Your task to perform on an android device: Go to internet settings Image 0: 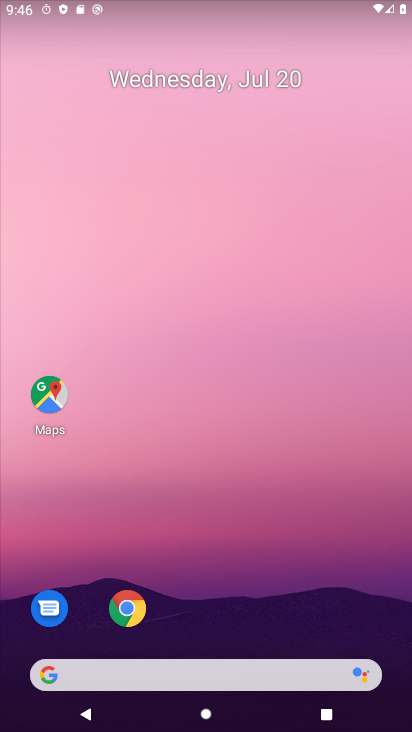
Step 0: drag from (303, 654) to (270, 260)
Your task to perform on an android device: Go to internet settings Image 1: 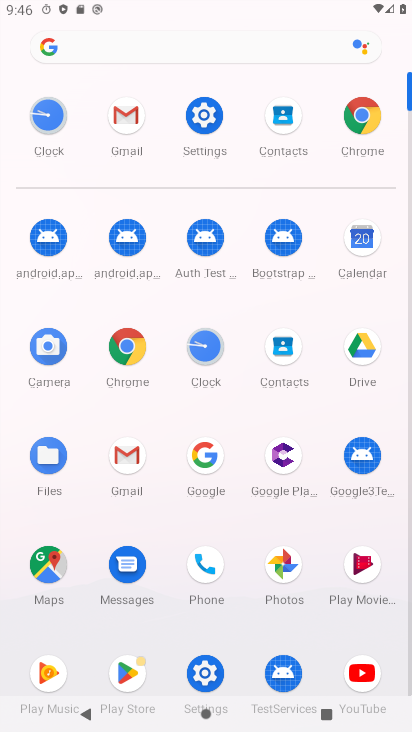
Step 1: click (198, 121)
Your task to perform on an android device: Go to internet settings Image 2: 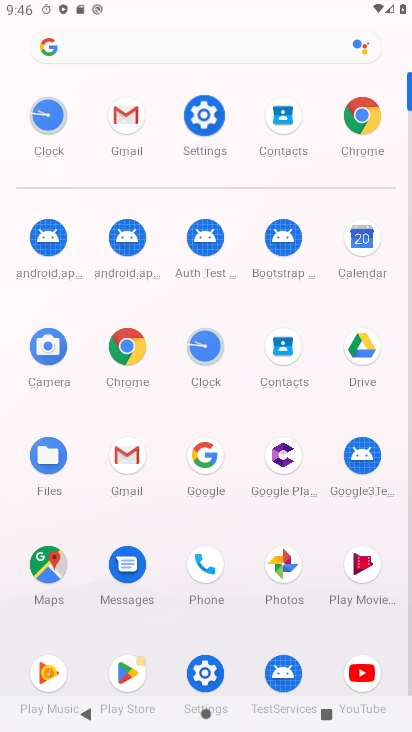
Step 2: click (206, 124)
Your task to perform on an android device: Go to internet settings Image 3: 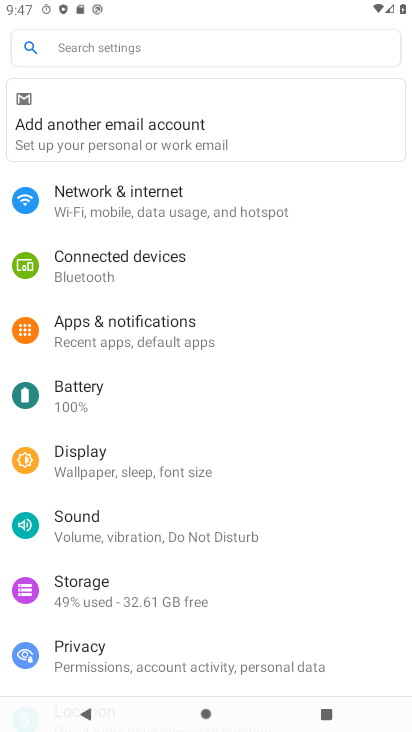
Step 3: click (117, 202)
Your task to perform on an android device: Go to internet settings Image 4: 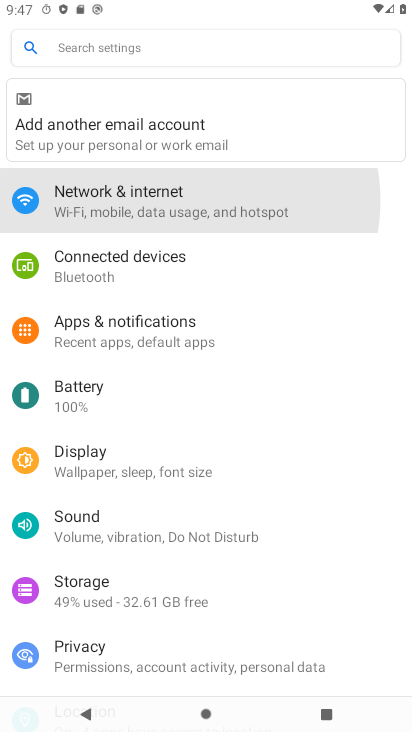
Step 4: click (119, 203)
Your task to perform on an android device: Go to internet settings Image 5: 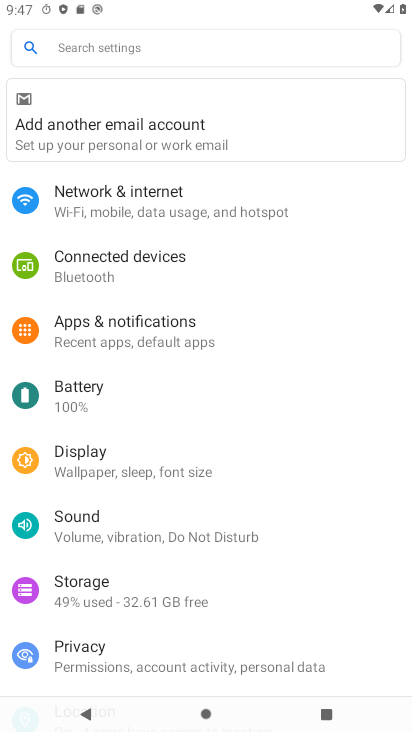
Step 5: click (120, 202)
Your task to perform on an android device: Go to internet settings Image 6: 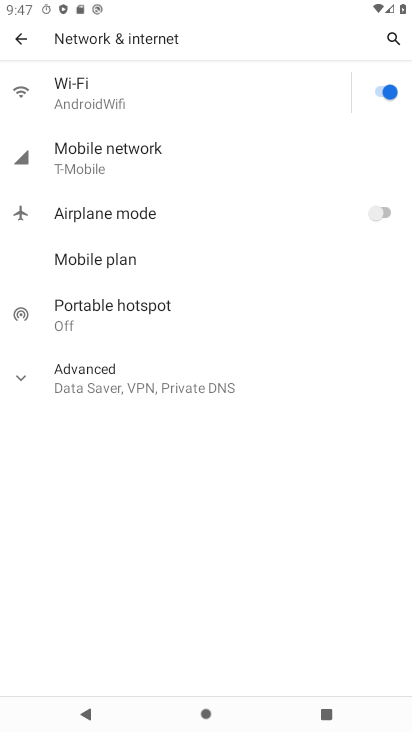
Step 6: task complete